Your task to perform on an android device: change the clock display to digital Image 0: 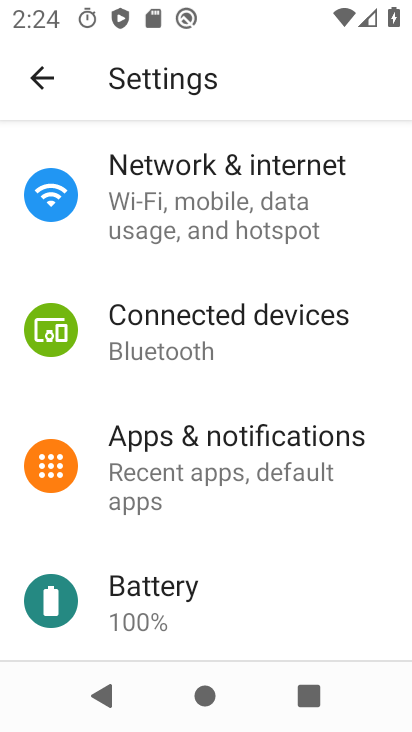
Step 0: press home button
Your task to perform on an android device: change the clock display to digital Image 1: 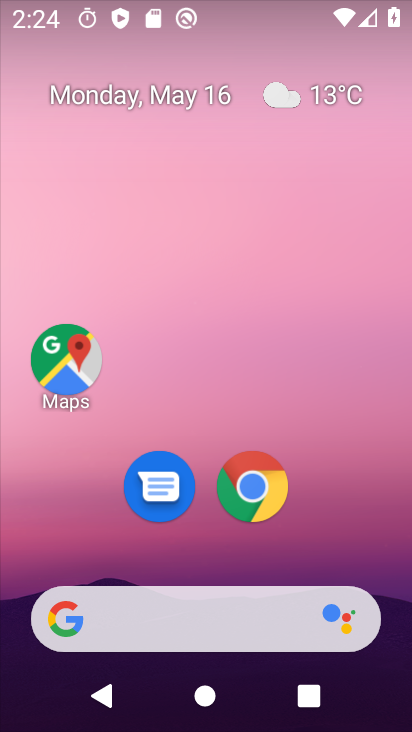
Step 1: drag from (343, 499) to (270, 48)
Your task to perform on an android device: change the clock display to digital Image 2: 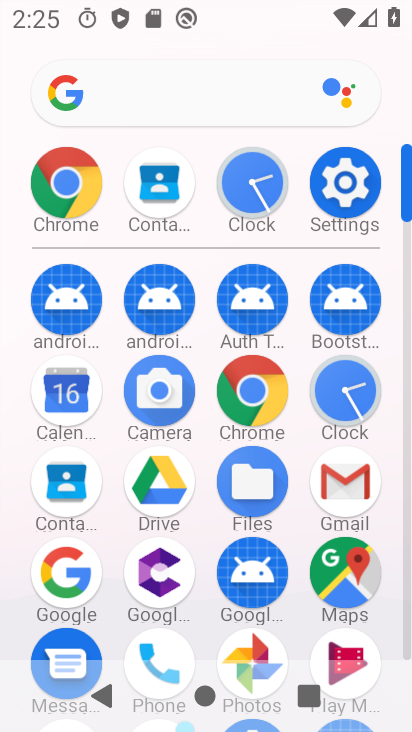
Step 2: click (251, 197)
Your task to perform on an android device: change the clock display to digital Image 3: 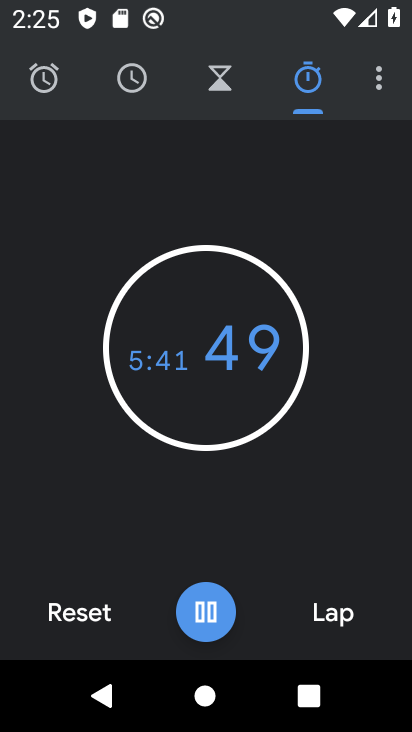
Step 3: click (367, 80)
Your task to perform on an android device: change the clock display to digital Image 4: 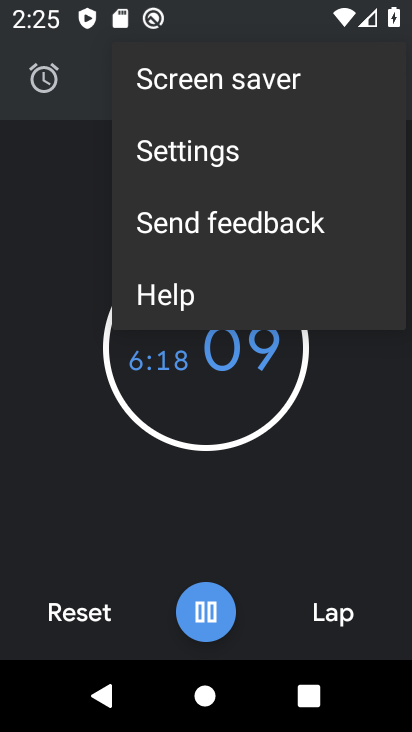
Step 4: click (210, 165)
Your task to perform on an android device: change the clock display to digital Image 5: 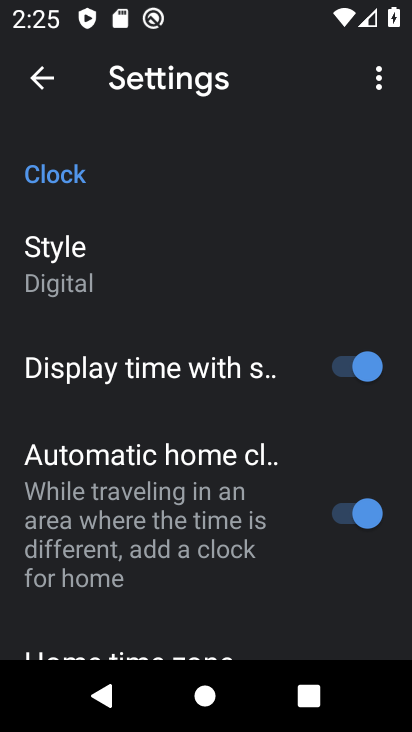
Step 5: click (97, 280)
Your task to perform on an android device: change the clock display to digital Image 6: 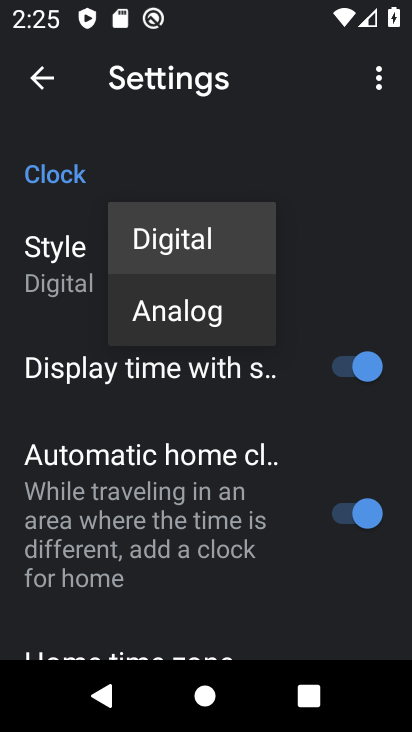
Step 6: task complete